Your task to perform on an android device: toggle notification dots Image 0: 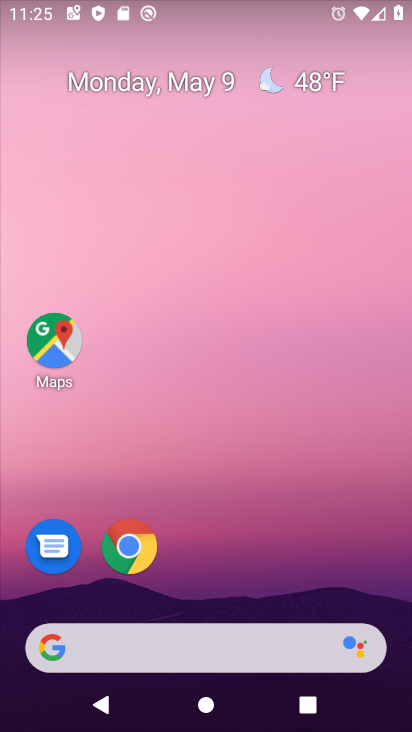
Step 0: drag from (314, 610) to (330, 1)
Your task to perform on an android device: toggle notification dots Image 1: 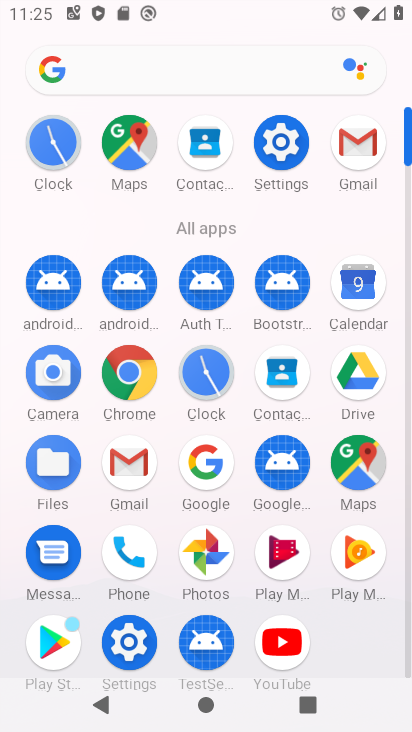
Step 1: click (280, 148)
Your task to perform on an android device: toggle notification dots Image 2: 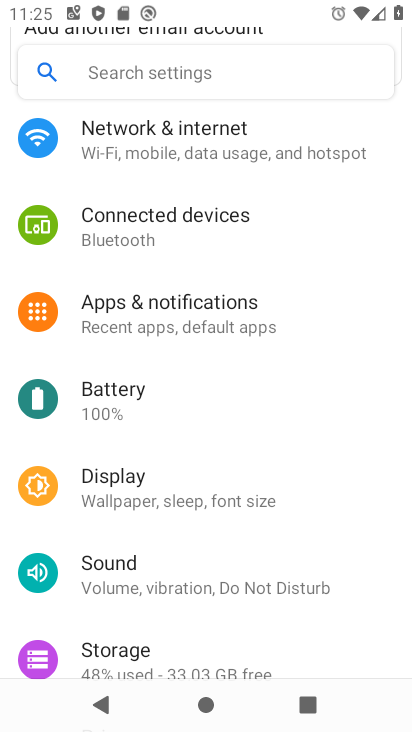
Step 2: click (231, 315)
Your task to perform on an android device: toggle notification dots Image 3: 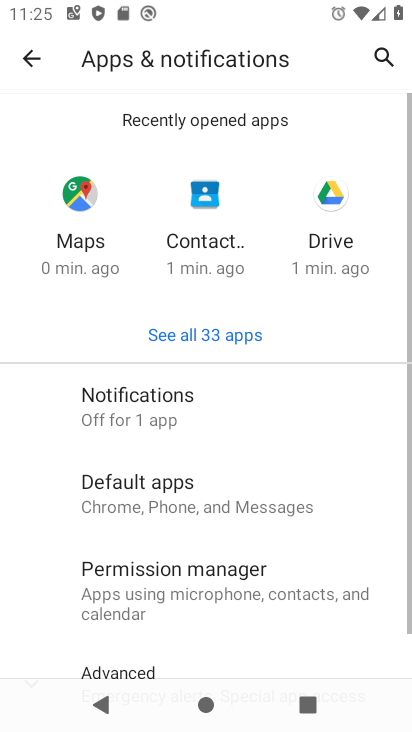
Step 3: click (137, 421)
Your task to perform on an android device: toggle notification dots Image 4: 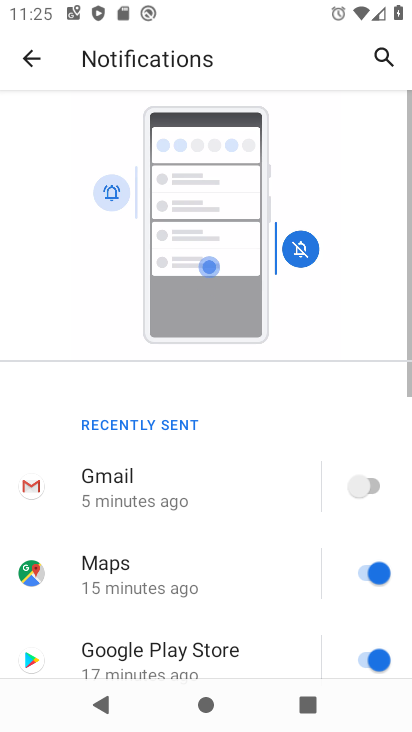
Step 4: drag from (208, 552) to (203, 90)
Your task to perform on an android device: toggle notification dots Image 5: 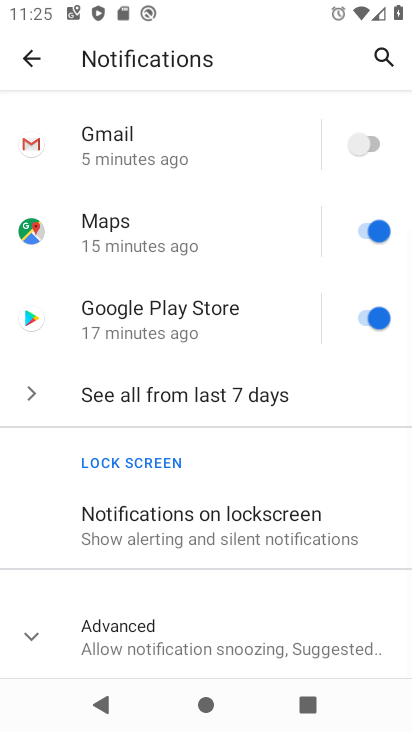
Step 5: drag from (168, 533) to (180, 119)
Your task to perform on an android device: toggle notification dots Image 6: 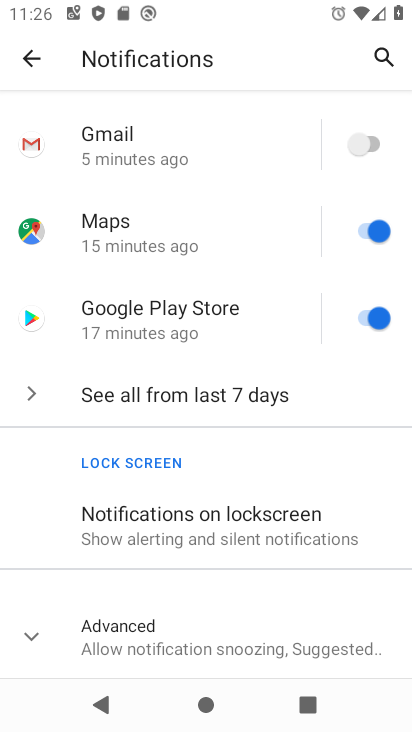
Step 6: click (42, 643)
Your task to perform on an android device: toggle notification dots Image 7: 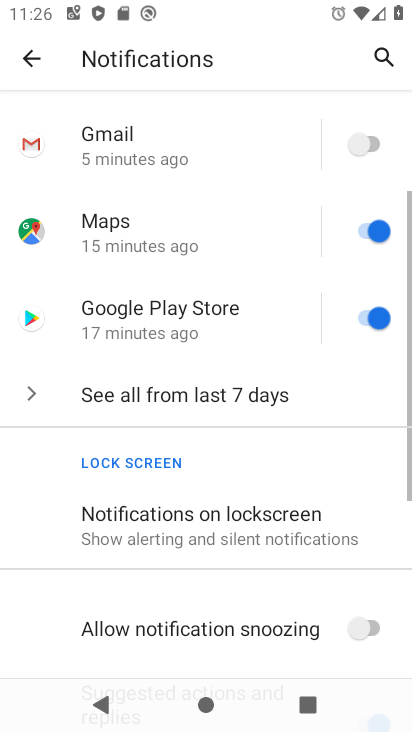
Step 7: drag from (118, 626) to (141, 204)
Your task to perform on an android device: toggle notification dots Image 8: 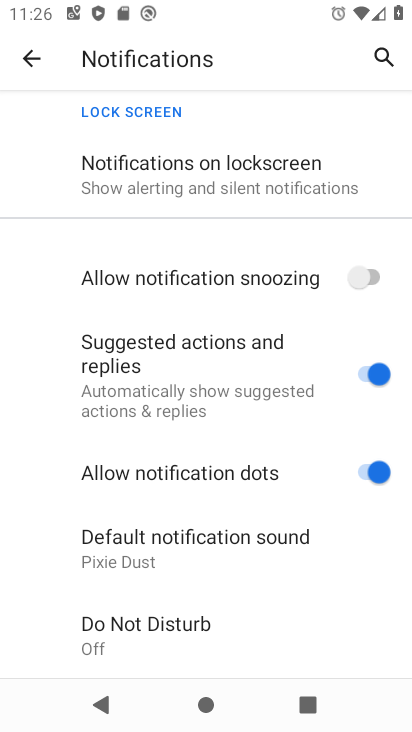
Step 8: click (370, 473)
Your task to perform on an android device: toggle notification dots Image 9: 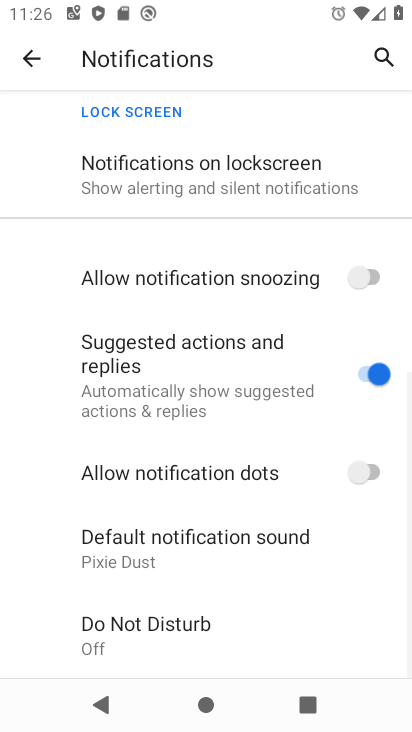
Step 9: task complete